Your task to perform on an android device: turn on translation in the chrome app Image 0: 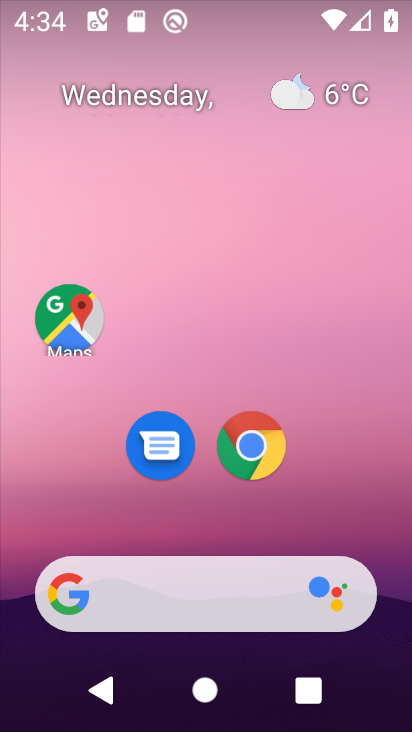
Step 0: click (263, 442)
Your task to perform on an android device: turn on translation in the chrome app Image 1: 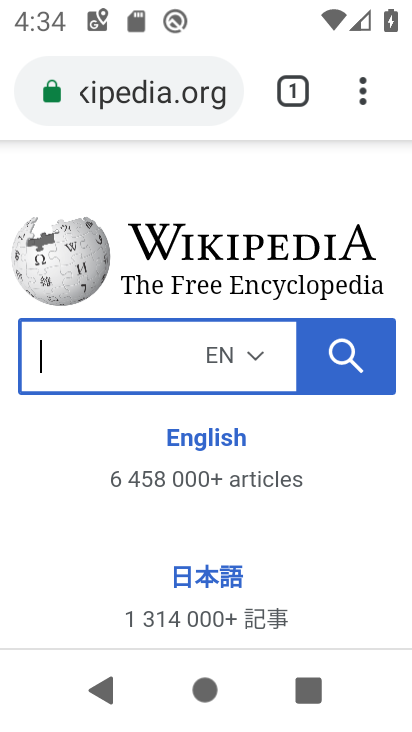
Step 1: click (350, 80)
Your task to perform on an android device: turn on translation in the chrome app Image 2: 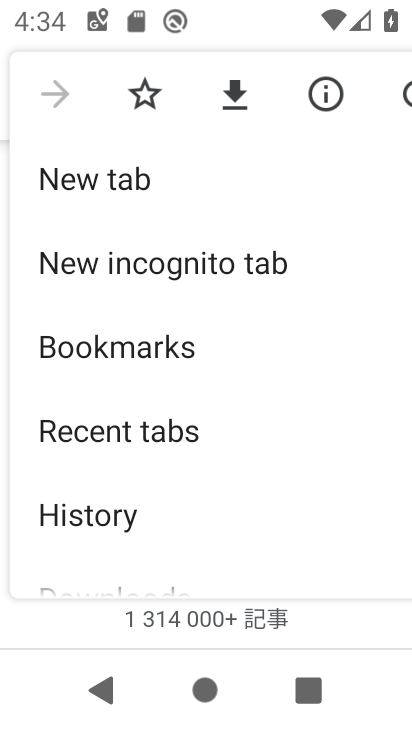
Step 2: drag from (166, 480) to (190, 213)
Your task to perform on an android device: turn on translation in the chrome app Image 3: 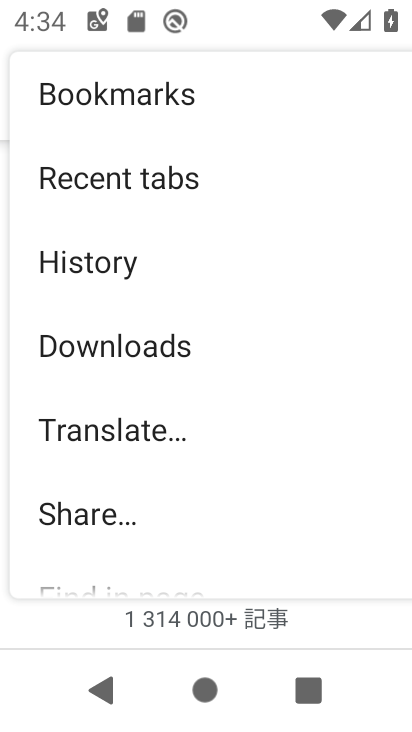
Step 3: drag from (156, 464) to (183, 162)
Your task to perform on an android device: turn on translation in the chrome app Image 4: 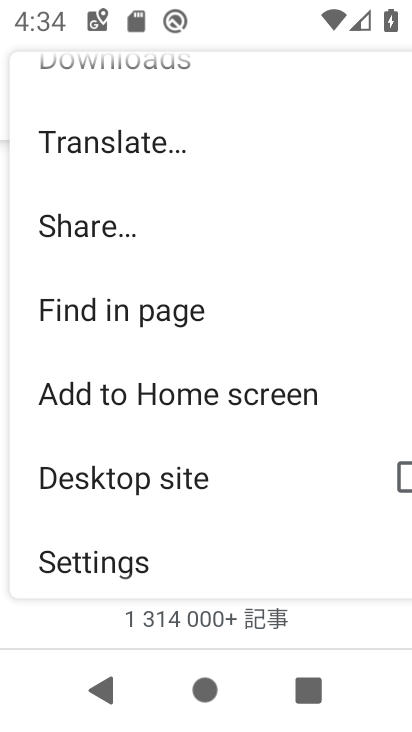
Step 4: drag from (125, 512) to (177, 122)
Your task to perform on an android device: turn on translation in the chrome app Image 5: 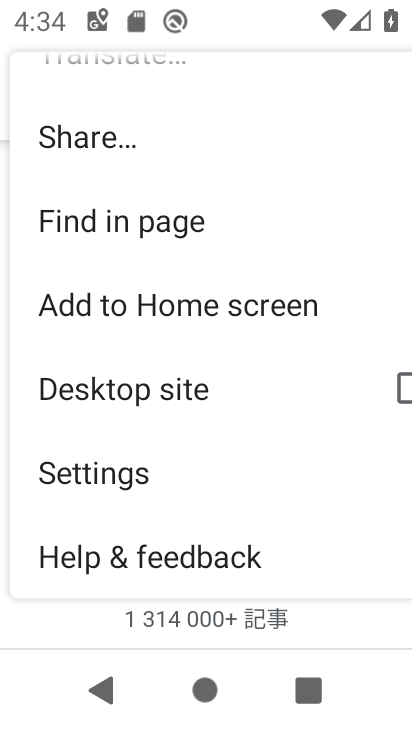
Step 5: click (103, 481)
Your task to perform on an android device: turn on translation in the chrome app Image 6: 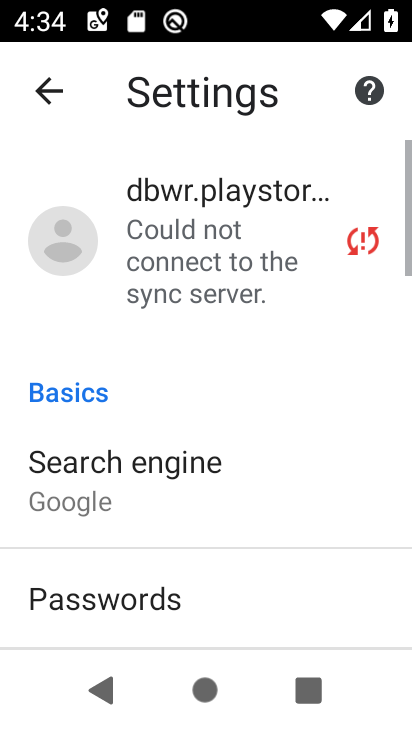
Step 6: drag from (151, 514) to (193, 257)
Your task to perform on an android device: turn on translation in the chrome app Image 7: 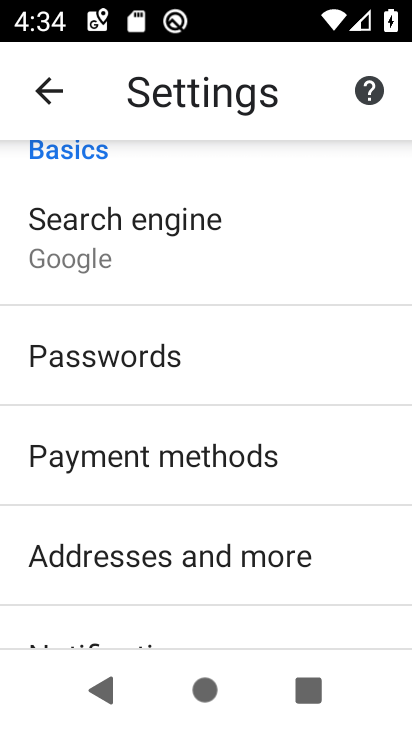
Step 7: drag from (217, 526) to (234, 248)
Your task to perform on an android device: turn on translation in the chrome app Image 8: 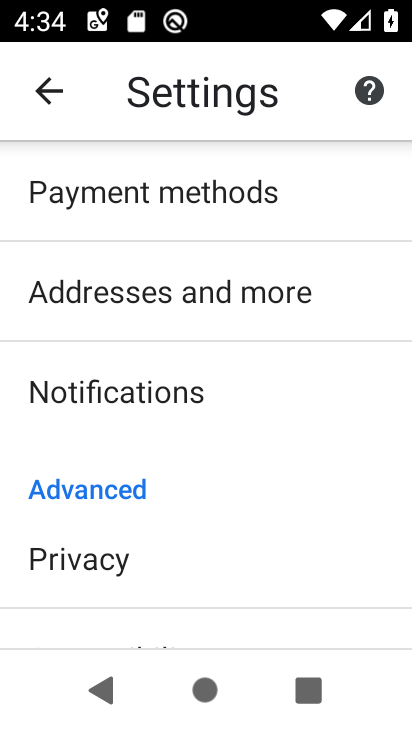
Step 8: drag from (127, 569) to (141, 312)
Your task to perform on an android device: turn on translation in the chrome app Image 9: 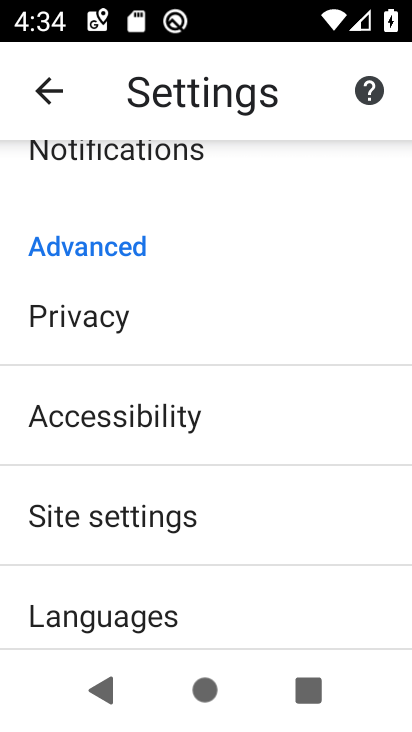
Step 9: click (83, 614)
Your task to perform on an android device: turn on translation in the chrome app Image 10: 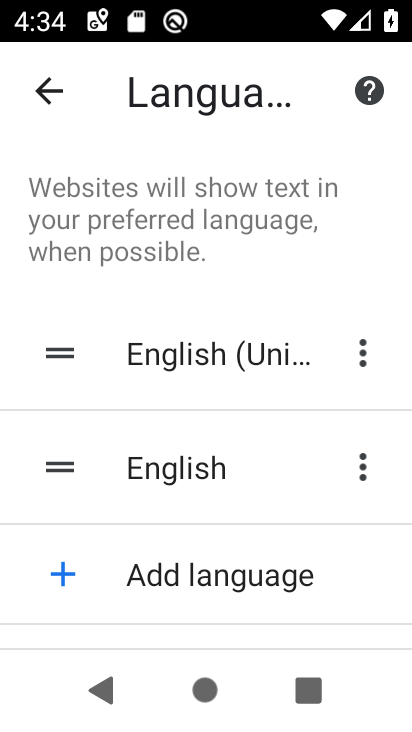
Step 10: task complete